Your task to perform on an android device: Open my contact list Image 0: 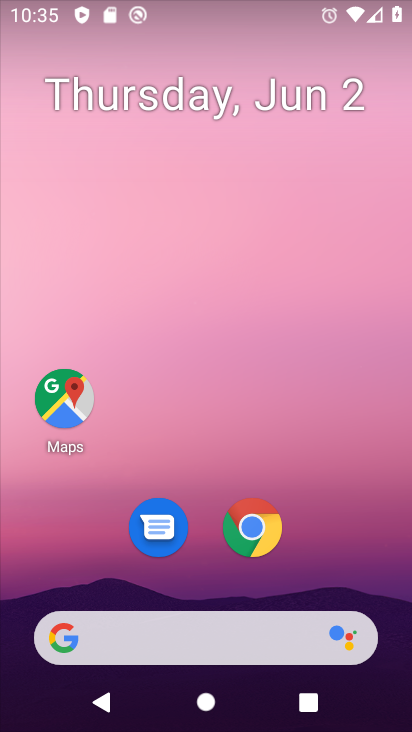
Step 0: drag from (176, 645) to (145, 175)
Your task to perform on an android device: Open my contact list Image 1: 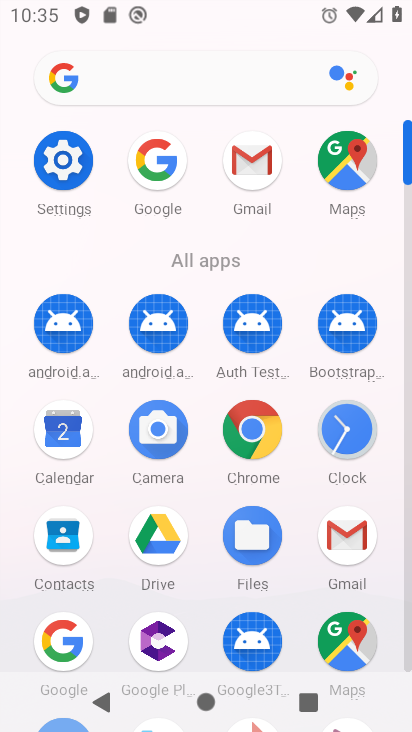
Step 1: click (66, 533)
Your task to perform on an android device: Open my contact list Image 2: 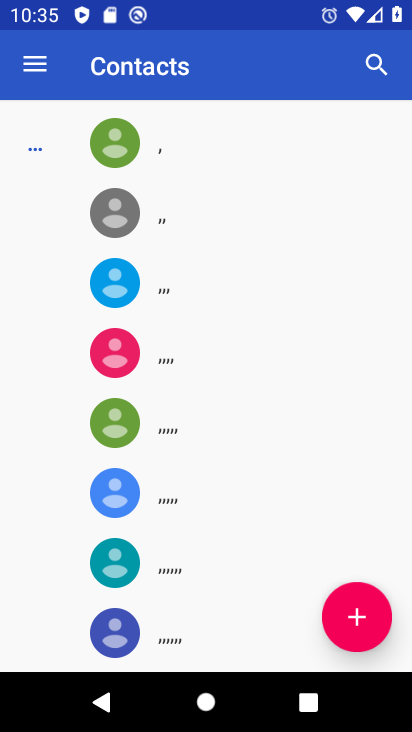
Step 2: click (370, 624)
Your task to perform on an android device: Open my contact list Image 3: 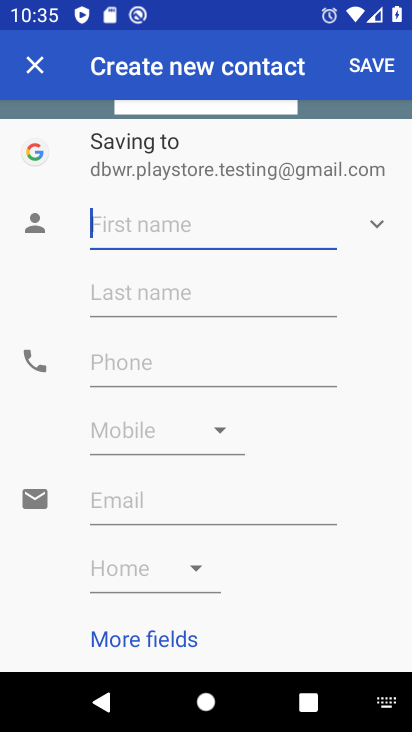
Step 3: click (39, 64)
Your task to perform on an android device: Open my contact list Image 4: 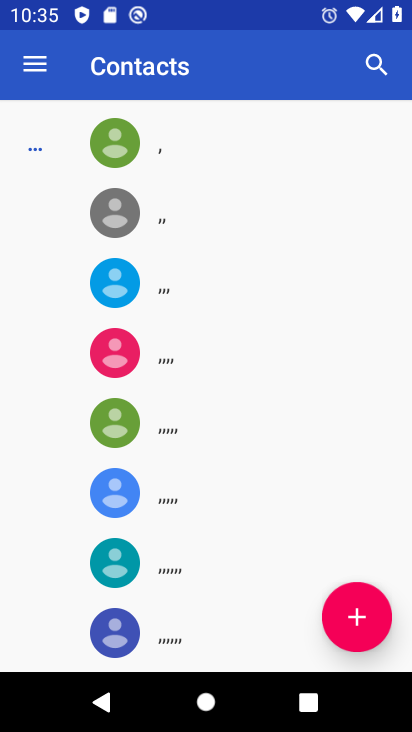
Step 4: task complete